Your task to perform on an android device: Check the news Image 0: 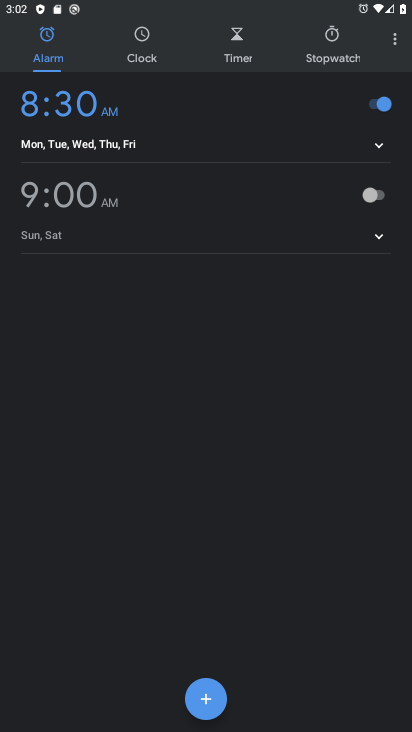
Step 0: press home button
Your task to perform on an android device: Check the news Image 1: 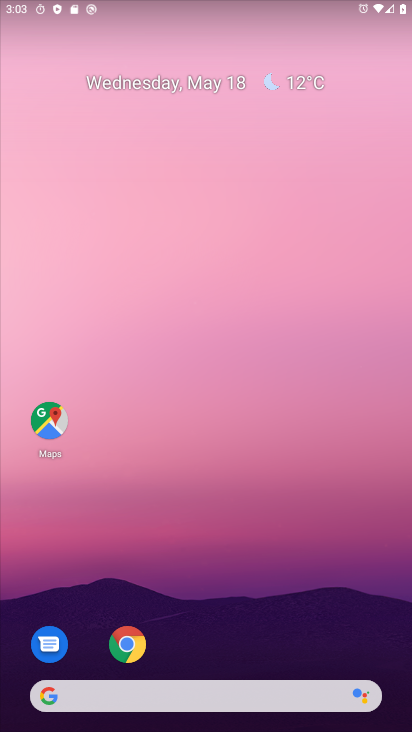
Step 1: drag from (384, 692) to (393, 467)
Your task to perform on an android device: Check the news Image 2: 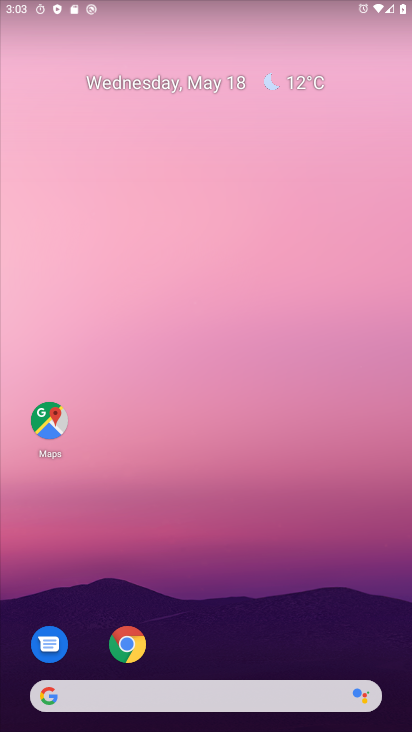
Step 2: drag from (394, 681) to (364, 305)
Your task to perform on an android device: Check the news Image 3: 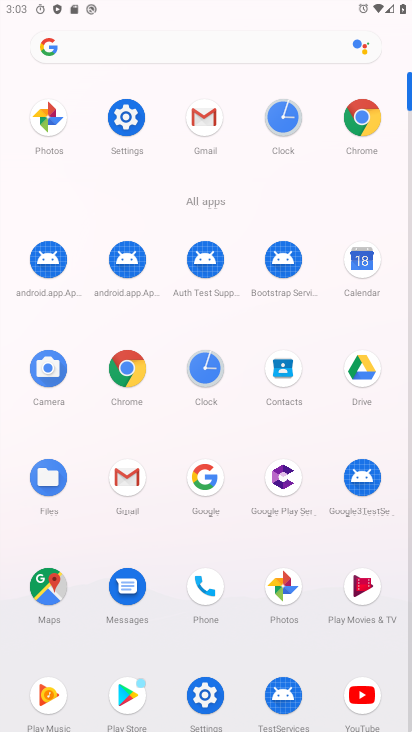
Step 3: click (187, 493)
Your task to perform on an android device: Check the news Image 4: 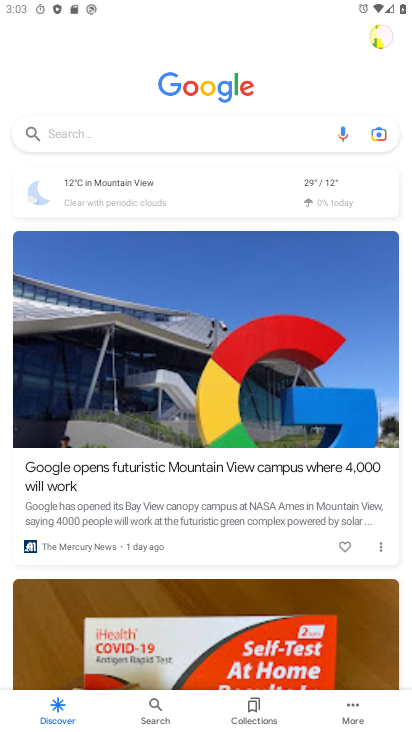
Step 4: task complete